Your task to perform on an android device: open app "Adobe Acrobat Reader" (install if not already installed) Image 0: 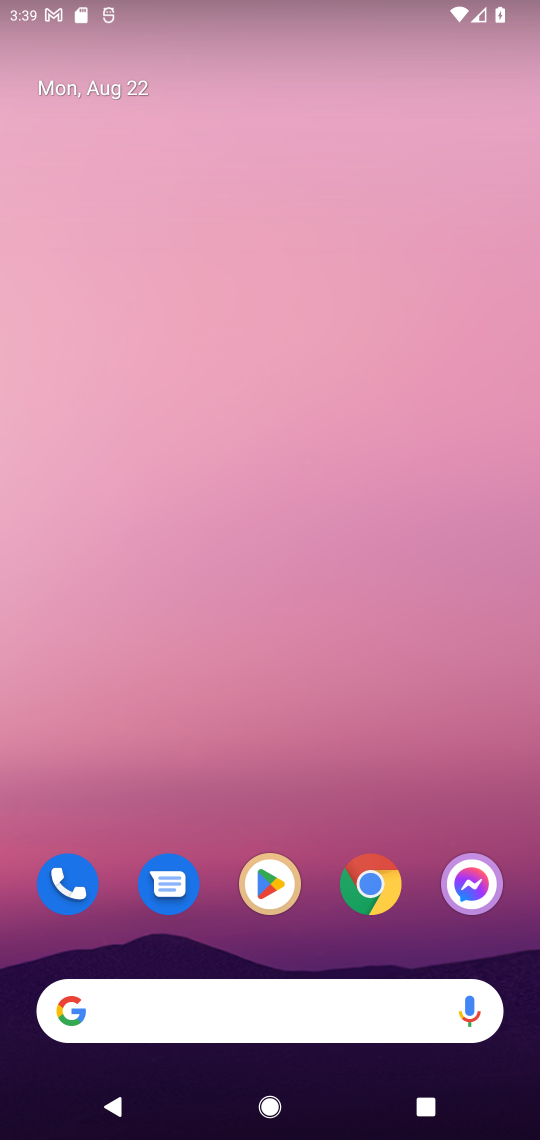
Step 0: click (275, 876)
Your task to perform on an android device: open app "Adobe Acrobat Reader" (install if not already installed) Image 1: 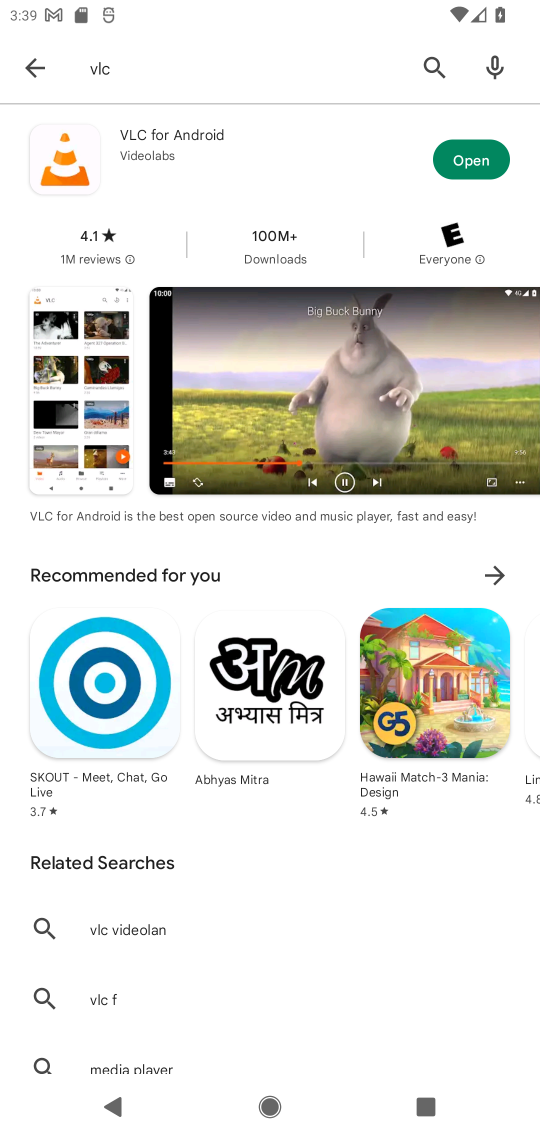
Step 1: click (173, 59)
Your task to perform on an android device: open app "Adobe Acrobat Reader" (install if not already installed) Image 2: 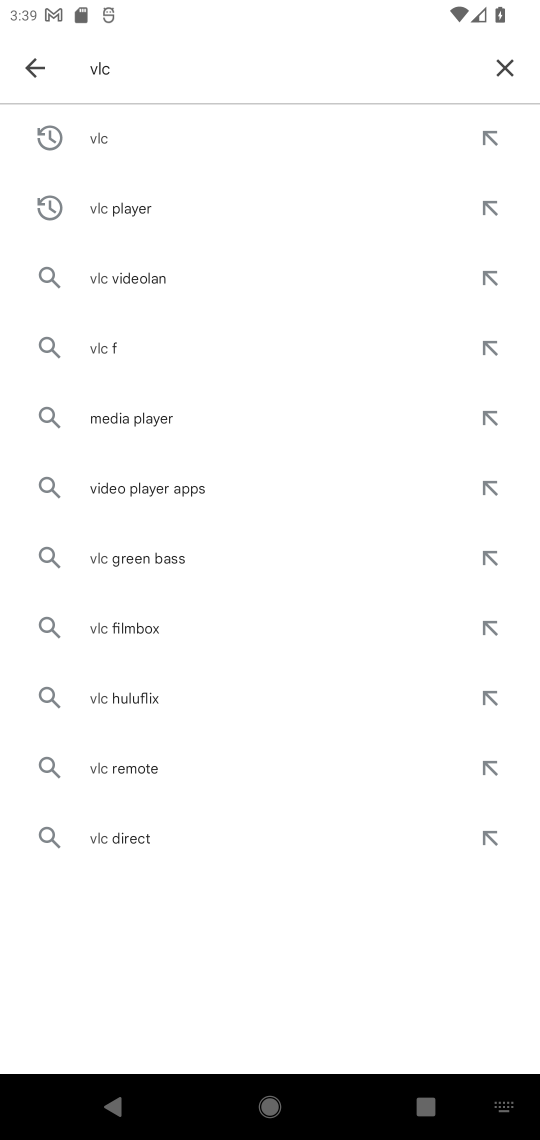
Step 2: click (513, 61)
Your task to perform on an android device: open app "Adobe Acrobat Reader" (install if not already installed) Image 3: 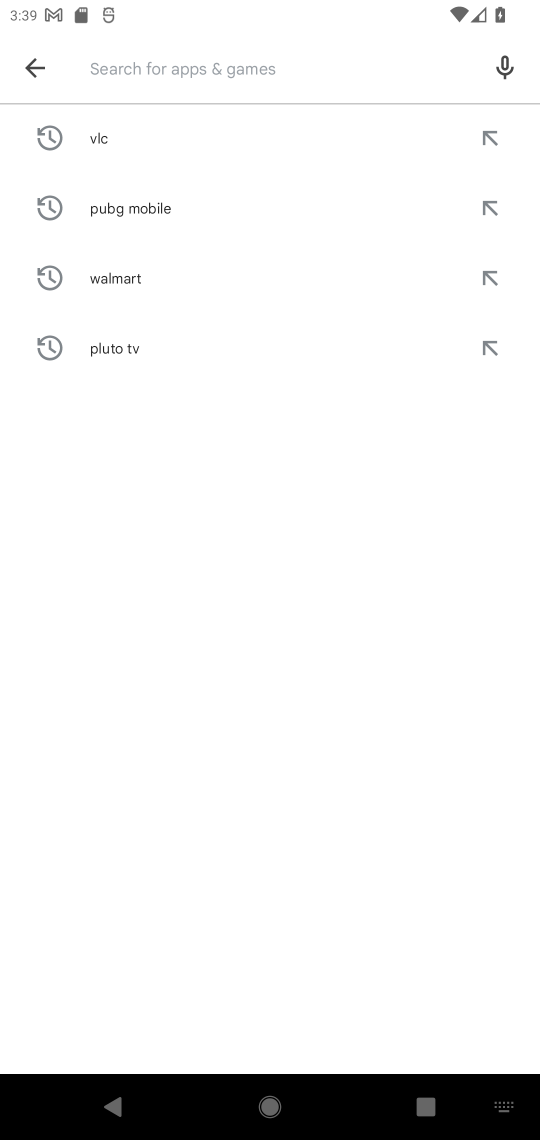
Step 3: type "adobe acrobat reader"
Your task to perform on an android device: open app "Adobe Acrobat Reader" (install if not already installed) Image 4: 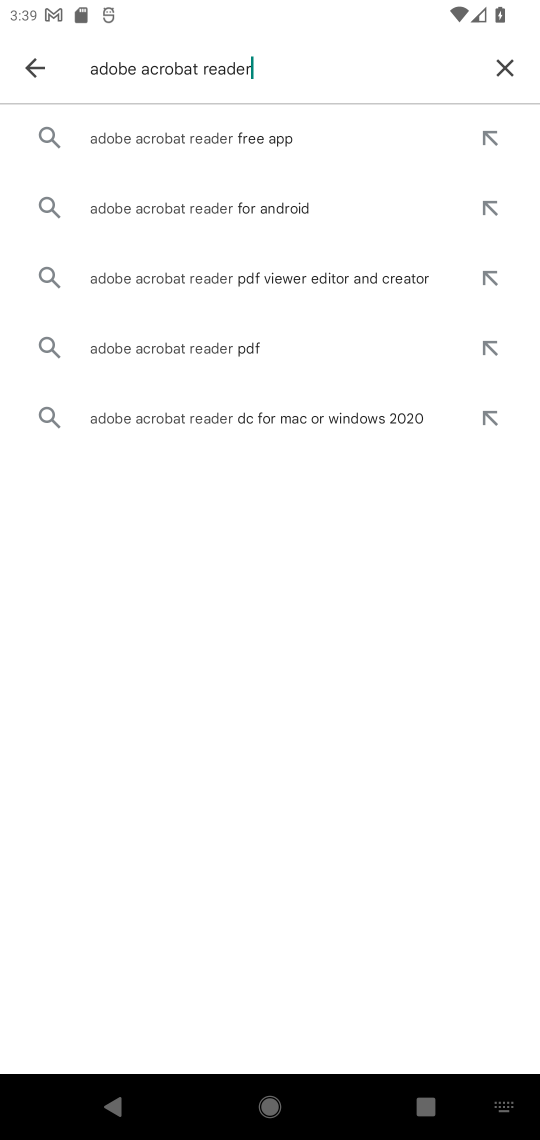
Step 4: click (154, 129)
Your task to perform on an android device: open app "Adobe Acrobat Reader" (install if not already installed) Image 5: 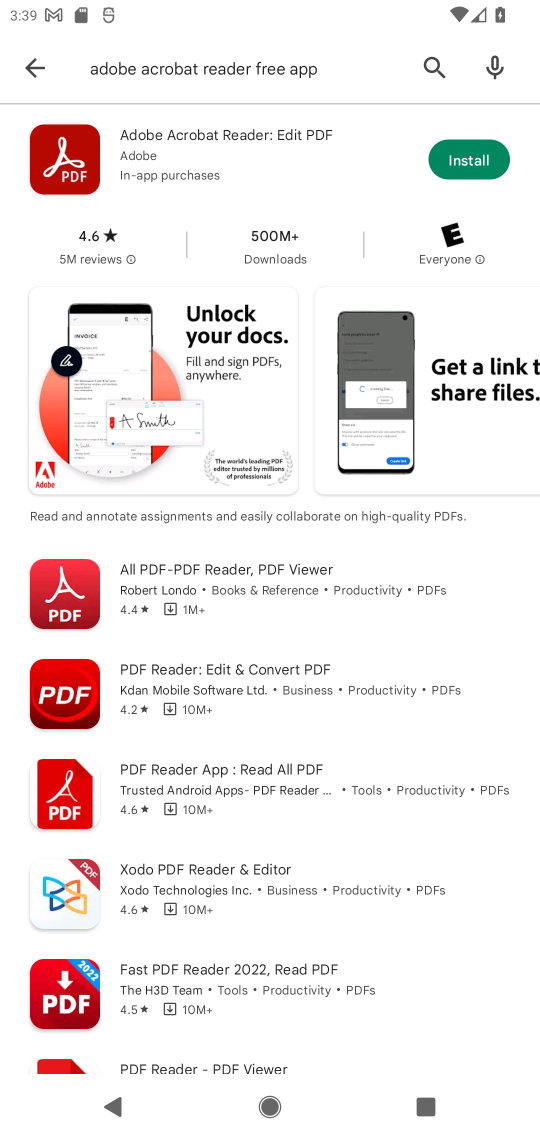
Step 5: click (485, 166)
Your task to perform on an android device: open app "Adobe Acrobat Reader" (install if not already installed) Image 6: 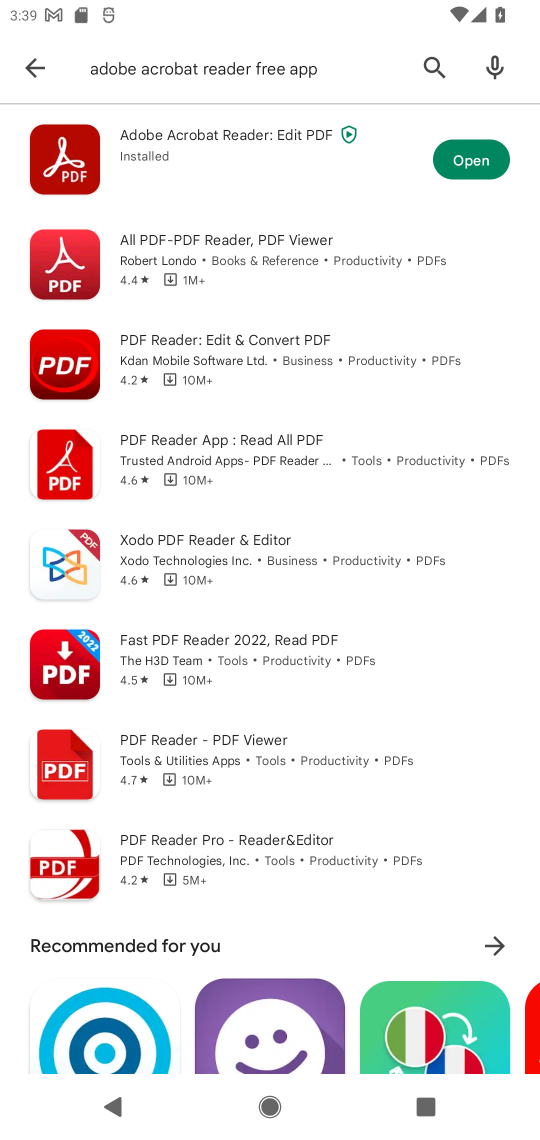
Step 6: click (473, 156)
Your task to perform on an android device: open app "Adobe Acrobat Reader" (install if not already installed) Image 7: 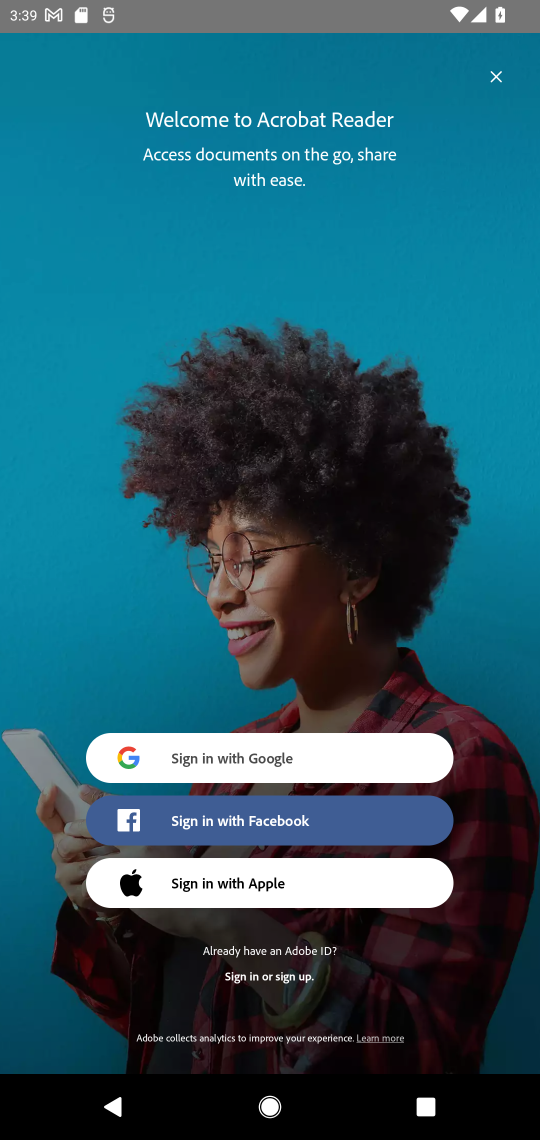
Step 7: click (348, 761)
Your task to perform on an android device: open app "Adobe Acrobat Reader" (install if not already installed) Image 8: 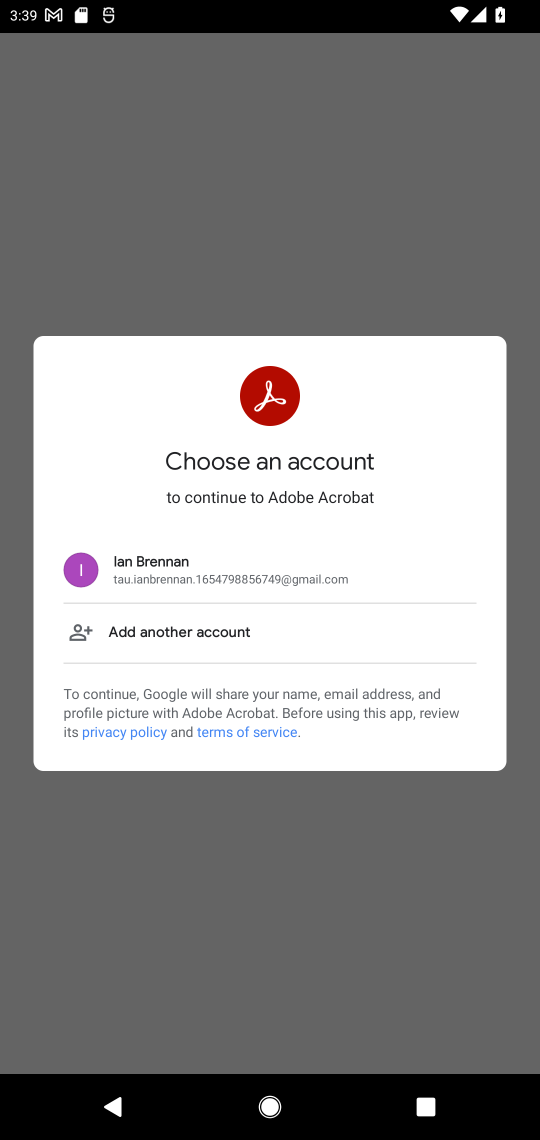
Step 8: click (232, 580)
Your task to perform on an android device: open app "Adobe Acrobat Reader" (install if not already installed) Image 9: 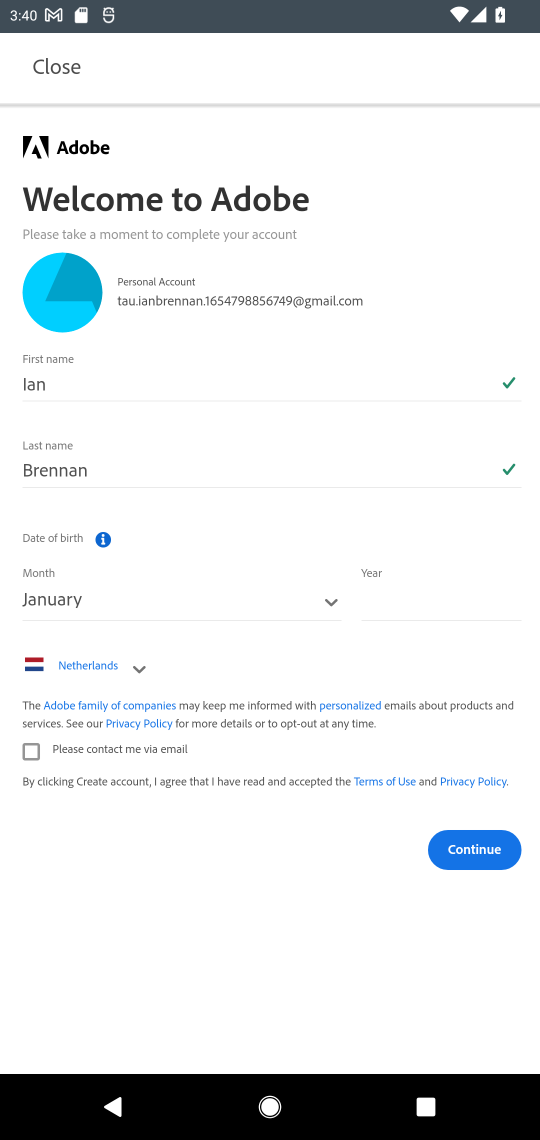
Step 9: click (35, 744)
Your task to perform on an android device: open app "Adobe Acrobat Reader" (install if not already installed) Image 10: 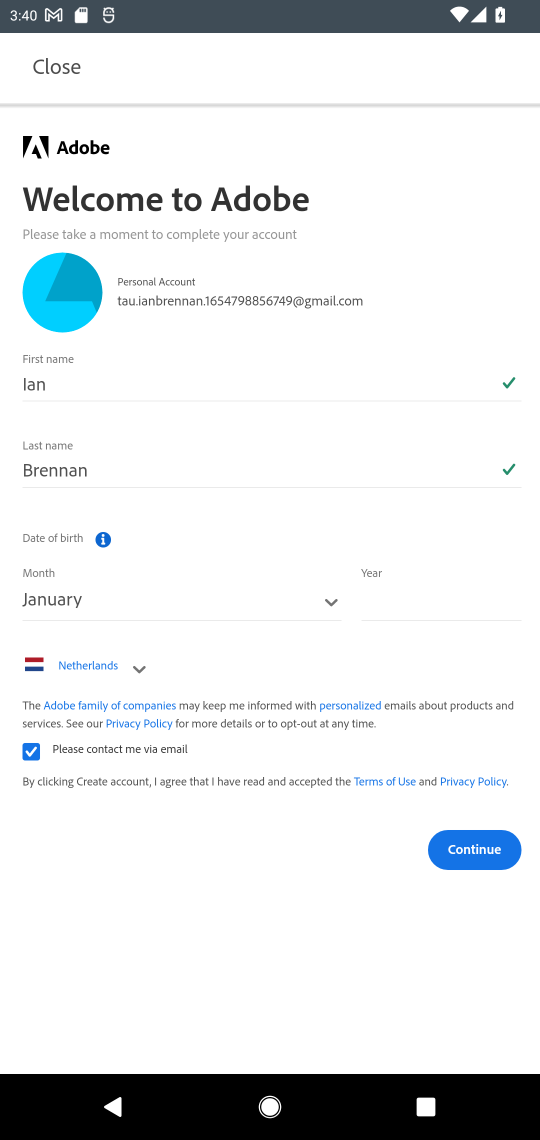
Step 10: click (334, 603)
Your task to perform on an android device: open app "Adobe Acrobat Reader" (install if not already installed) Image 11: 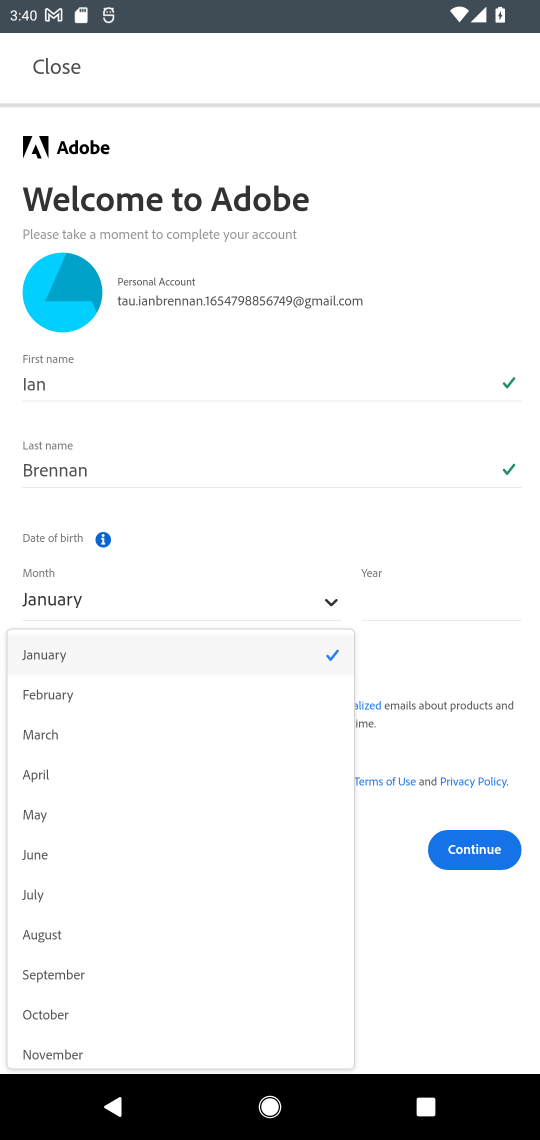
Step 11: click (48, 843)
Your task to perform on an android device: open app "Adobe Acrobat Reader" (install if not already installed) Image 12: 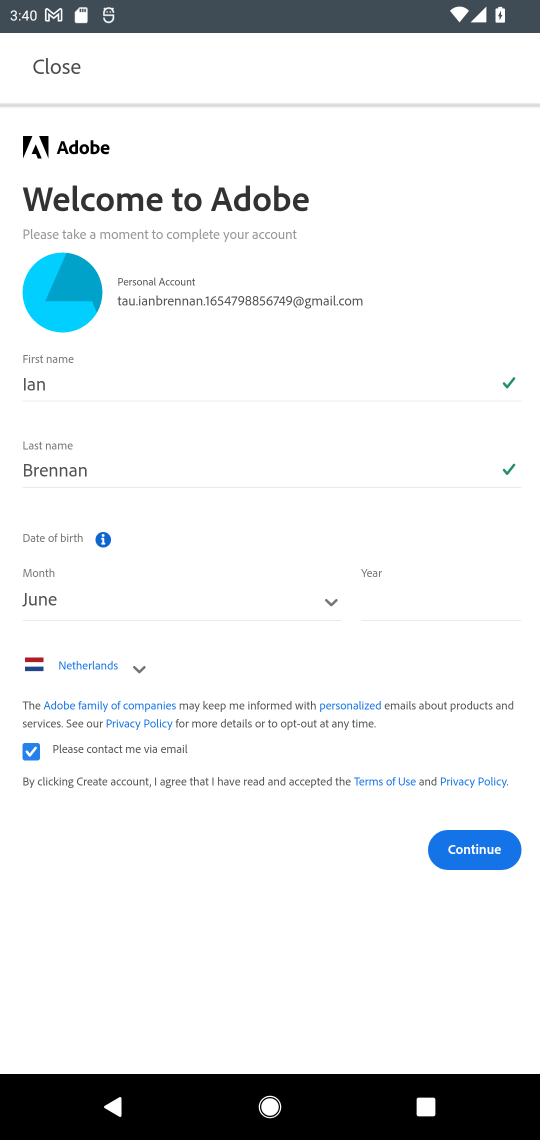
Step 12: click (463, 592)
Your task to perform on an android device: open app "Adobe Acrobat Reader" (install if not already installed) Image 13: 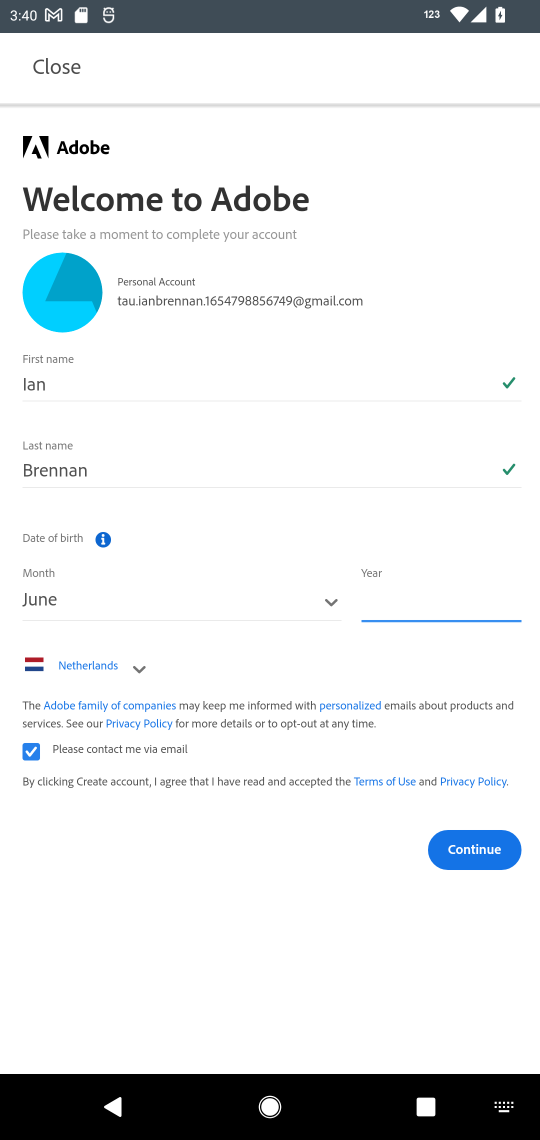
Step 13: type "1995"
Your task to perform on an android device: open app "Adobe Acrobat Reader" (install if not already installed) Image 14: 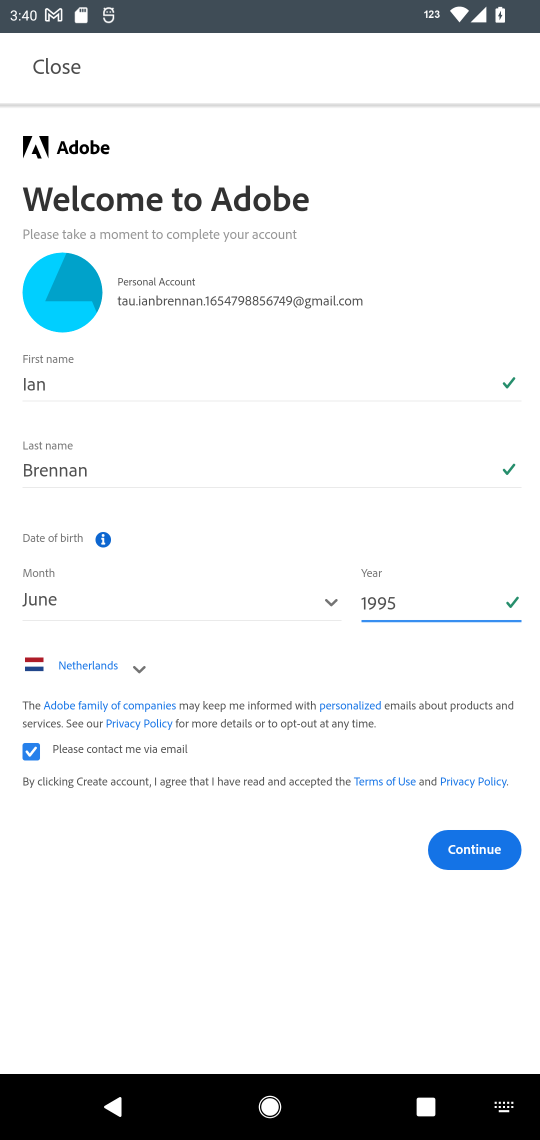
Step 14: click (489, 853)
Your task to perform on an android device: open app "Adobe Acrobat Reader" (install if not already installed) Image 15: 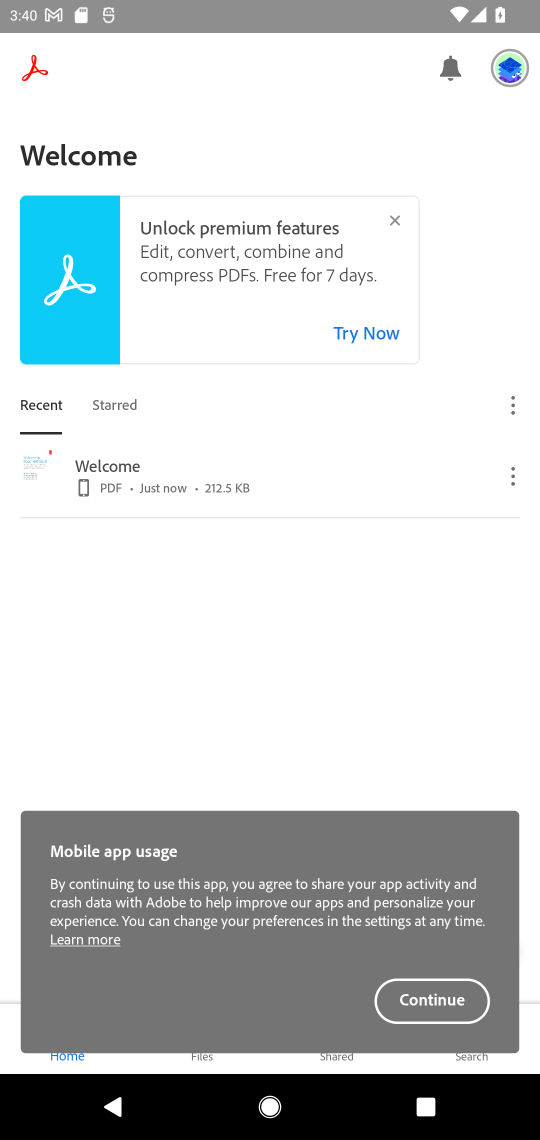
Step 15: task complete